Your task to perform on an android device: turn on priority inbox in the gmail app Image 0: 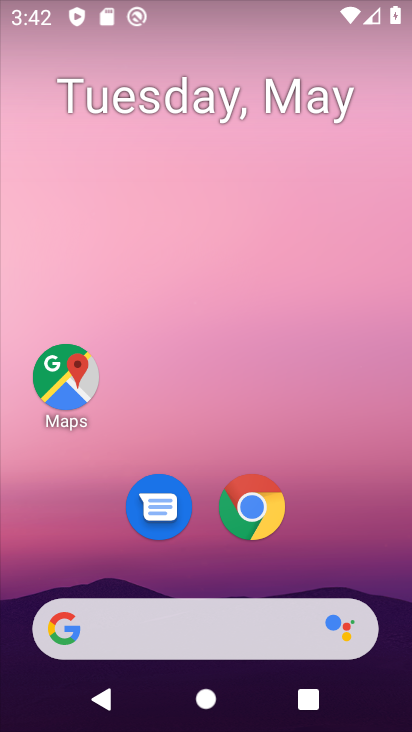
Step 0: drag from (241, 371) to (254, 44)
Your task to perform on an android device: turn on priority inbox in the gmail app Image 1: 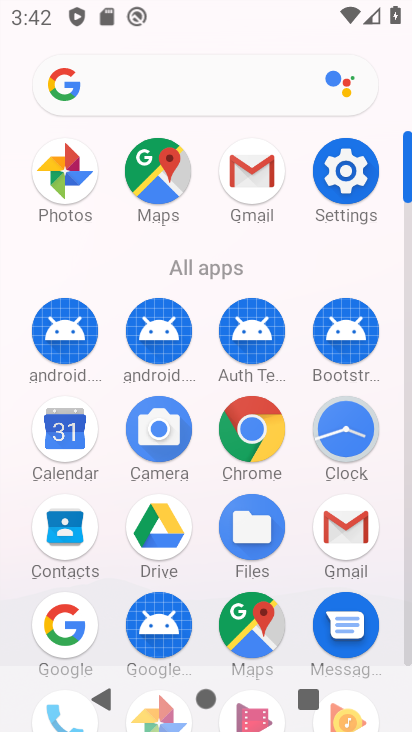
Step 1: click (260, 173)
Your task to perform on an android device: turn on priority inbox in the gmail app Image 2: 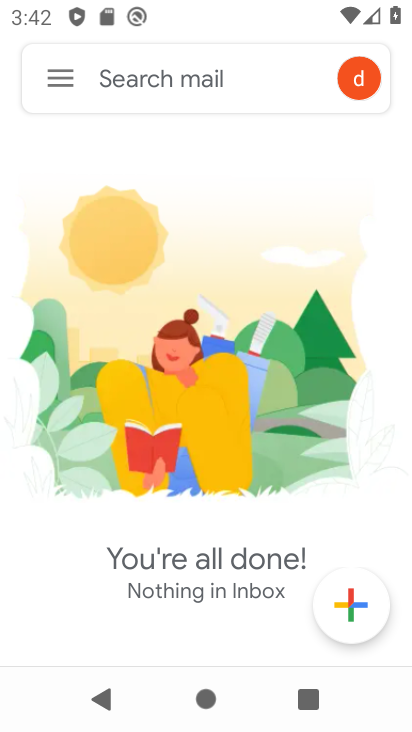
Step 2: click (60, 78)
Your task to perform on an android device: turn on priority inbox in the gmail app Image 3: 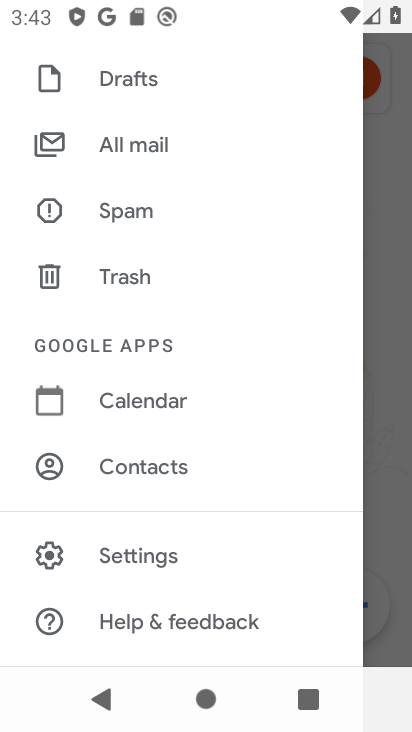
Step 3: click (146, 556)
Your task to perform on an android device: turn on priority inbox in the gmail app Image 4: 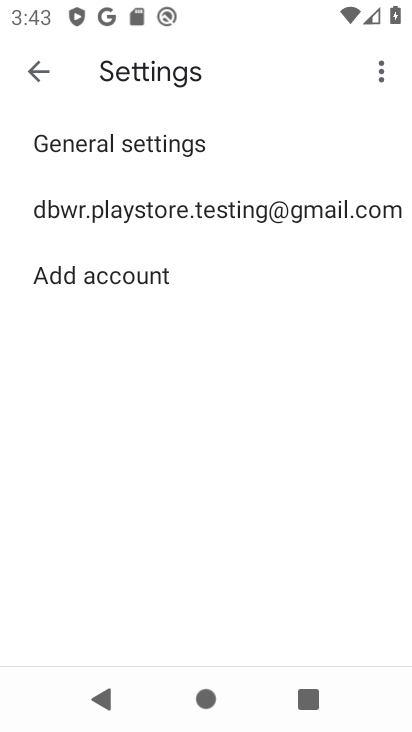
Step 4: click (106, 203)
Your task to perform on an android device: turn on priority inbox in the gmail app Image 5: 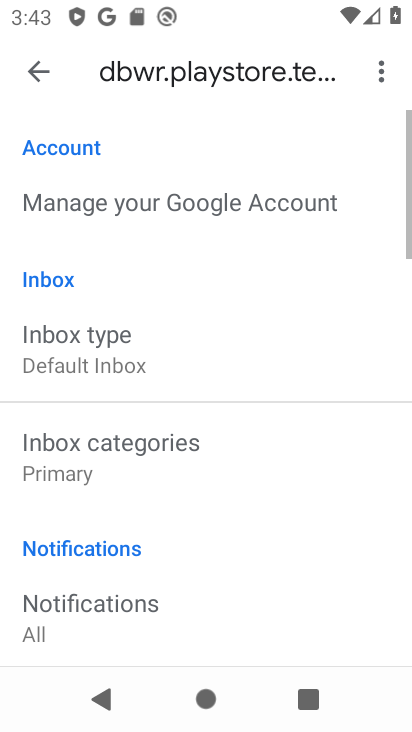
Step 5: click (134, 362)
Your task to perform on an android device: turn on priority inbox in the gmail app Image 6: 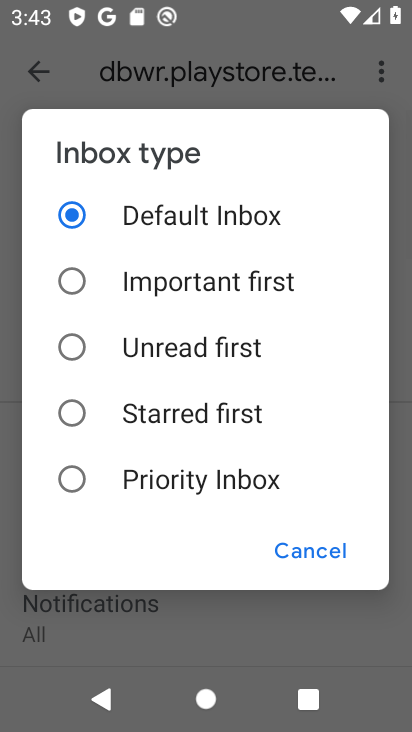
Step 6: click (103, 490)
Your task to perform on an android device: turn on priority inbox in the gmail app Image 7: 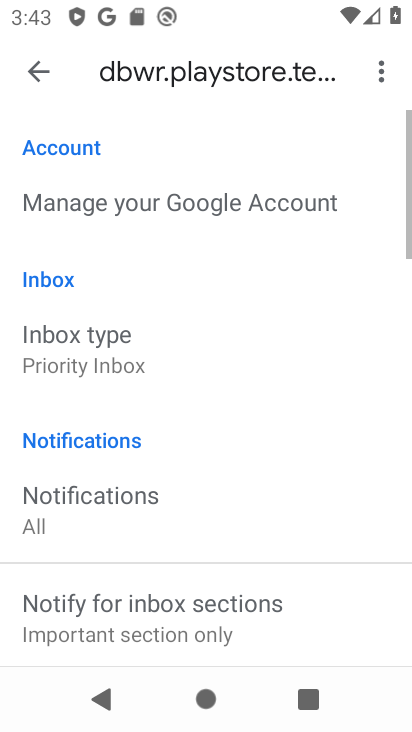
Step 7: task complete